Your task to perform on an android device: change the clock display to show seconds Image 0: 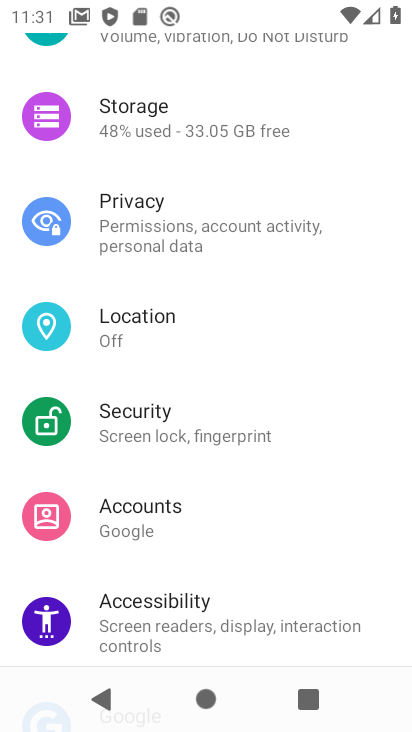
Step 0: press home button
Your task to perform on an android device: change the clock display to show seconds Image 1: 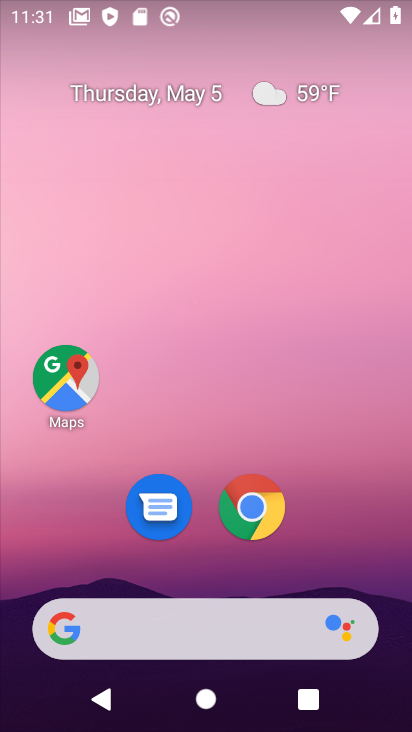
Step 1: drag from (326, 527) to (298, 102)
Your task to perform on an android device: change the clock display to show seconds Image 2: 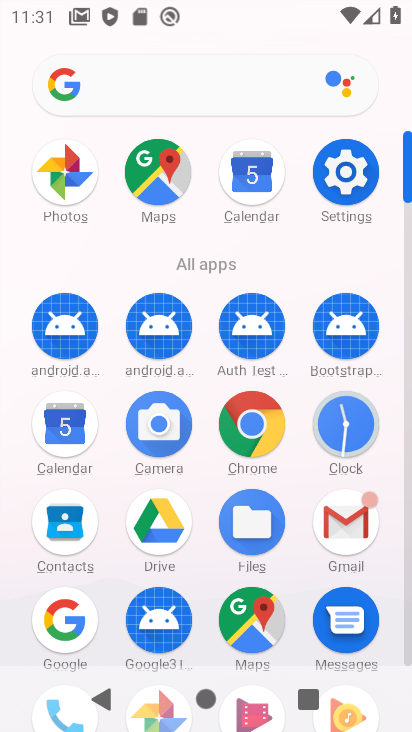
Step 2: click (346, 434)
Your task to perform on an android device: change the clock display to show seconds Image 3: 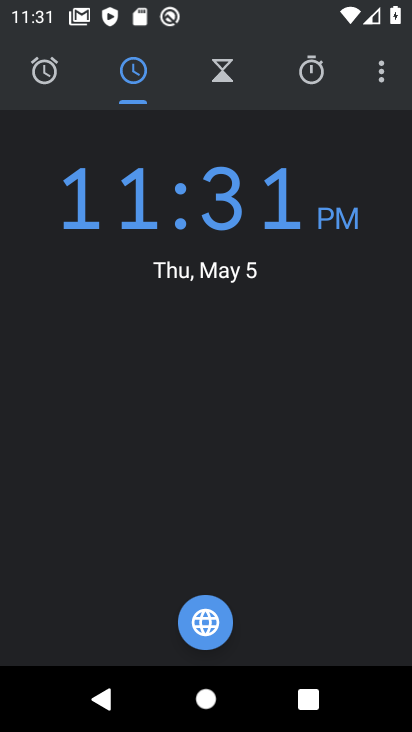
Step 3: click (380, 74)
Your task to perform on an android device: change the clock display to show seconds Image 4: 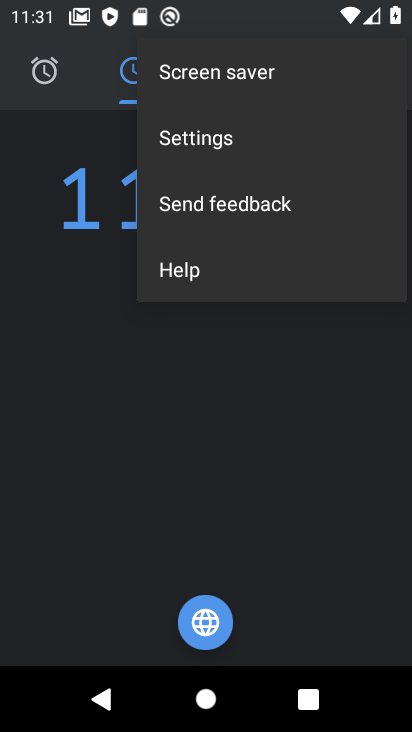
Step 4: click (217, 135)
Your task to perform on an android device: change the clock display to show seconds Image 5: 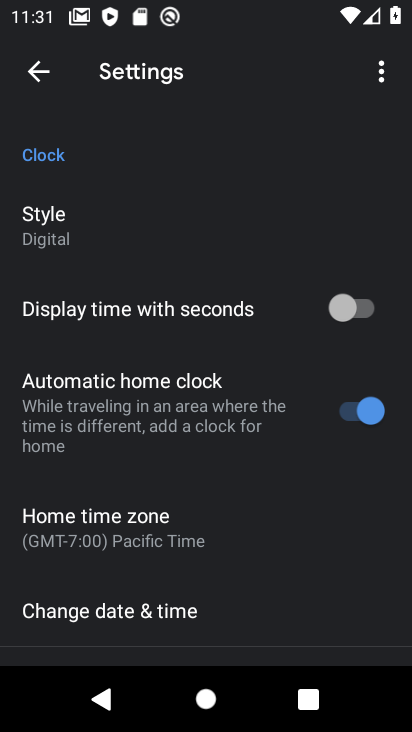
Step 5: click (343, 305)
Your task to perform on an android device: change the clock display to show seconds Image 6: 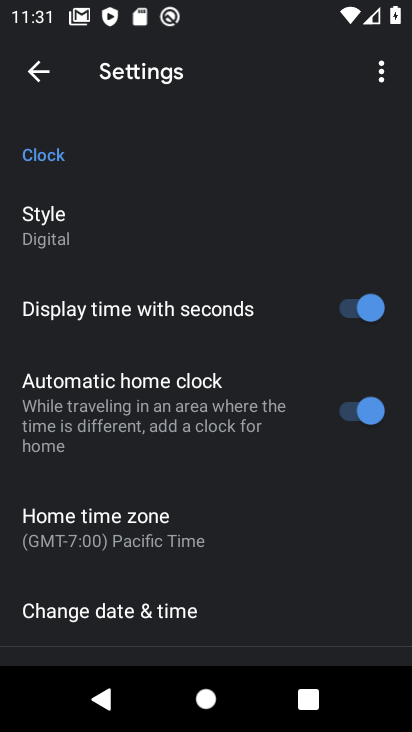
Step 6: task complete